Your task to perform on an android device: open wifi settings Image 0: 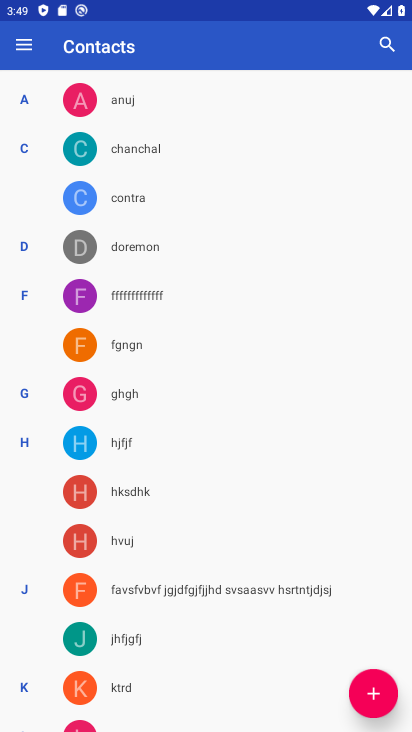
Step 0: press home button
Your task to perform on an android device: open wifi settings Image 1: 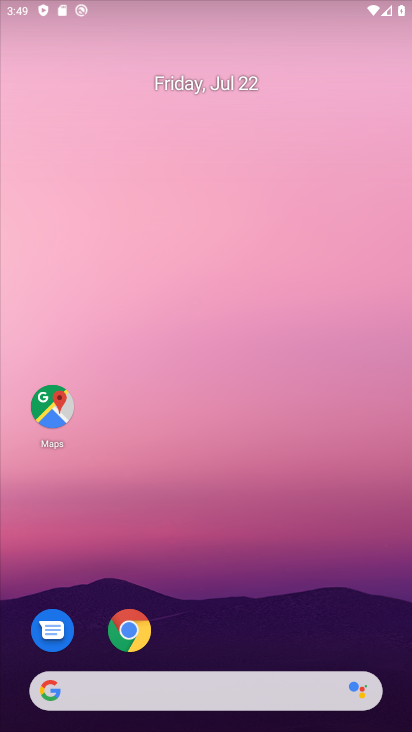
Step 1: drag from (155, 700) to (168, 11)
Your task to perform on an android device: open wifi settings Image 2: 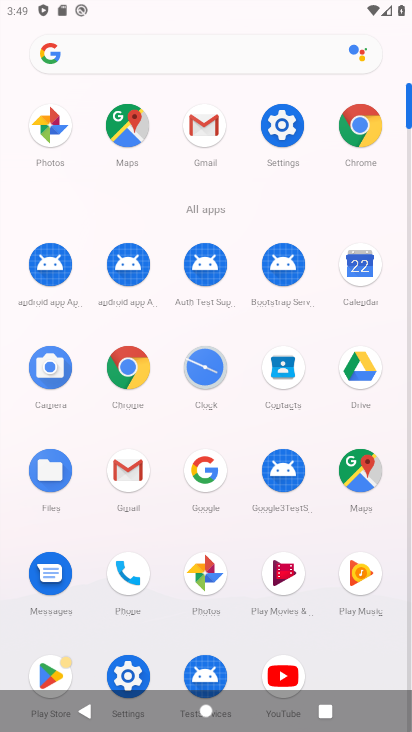
Step 2: click (285, 116)
Your task to perform on an android device: open wifi settings Image 3: 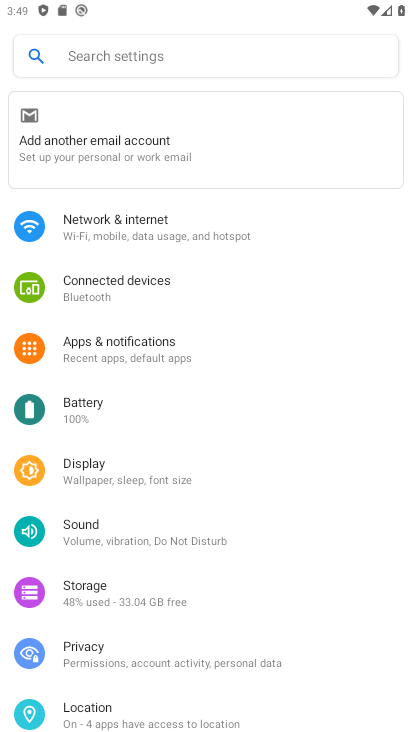
Step 3: click (96, 238)
Your task to perform on an android device: open wifi settings Image 4: 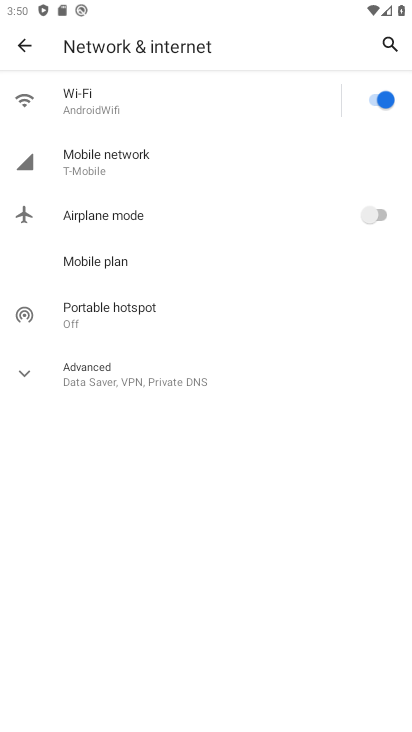
Step 4: task complete